Your task to perform on an android device: toggle javascript in the chrome app Image 0: 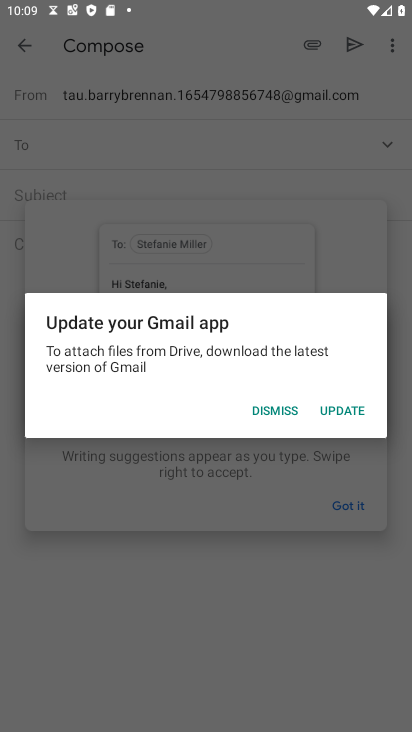
Step 0: press home button
Your task to perform on an android device: toggle javascript in the chrome app Image 1: 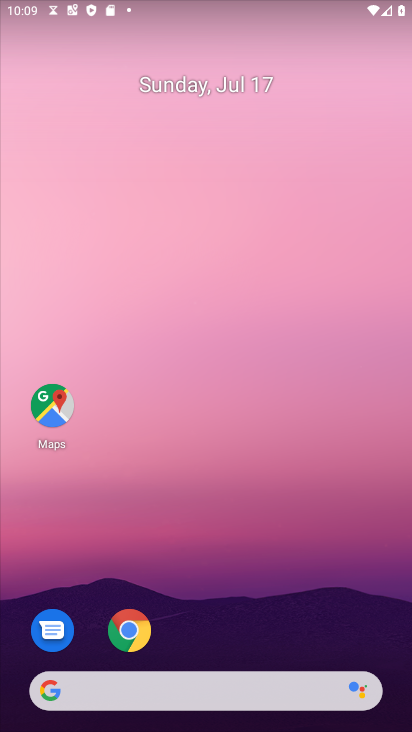
Step 1: drag from (253, 671) to (290, 19)
Your task to perform on an android device: toggle javascript in the chrome app Image 2: 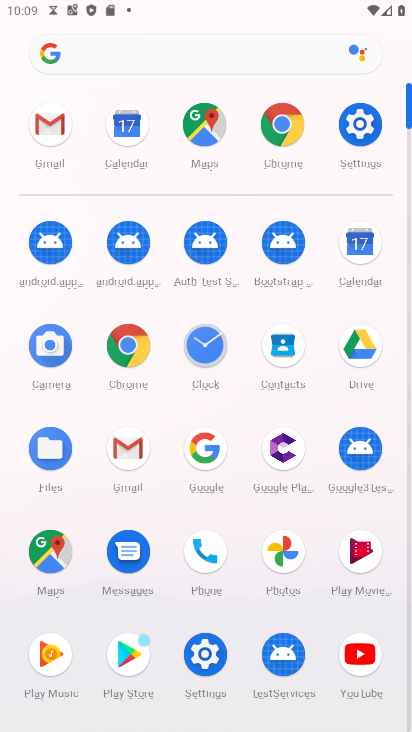
Step 2: click (123, 350)
Your task to perform on an android device: toggle javascript in the chrome app Image 3: 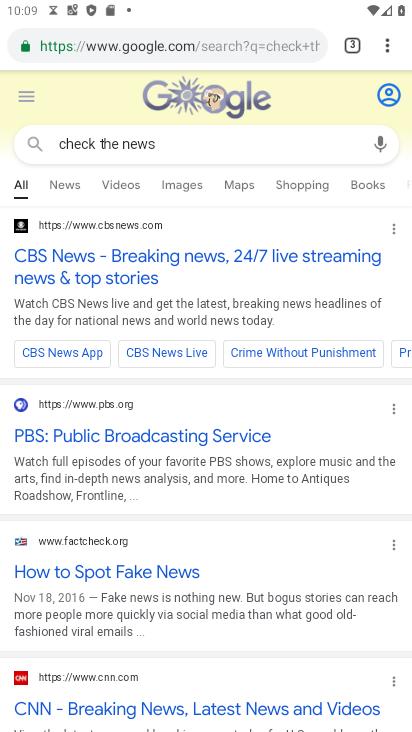
Step 3: drag from (385, 46) to (251, 505)
Your task to perform on an android device: toggle javascript in the chrome app Image 4: 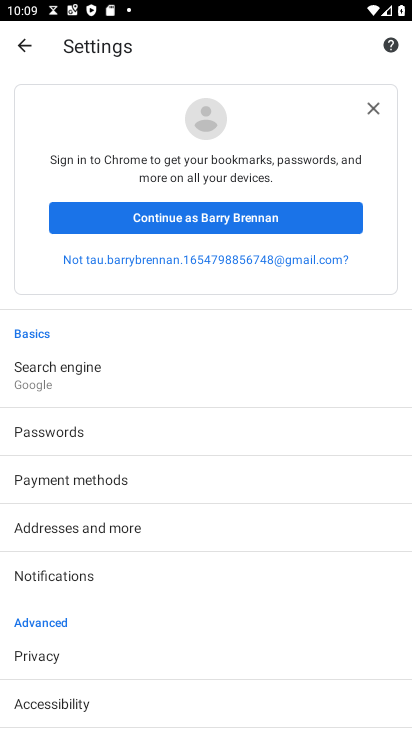
Step 4: drag from (114, 602) to (126, 135)
Your task to perform on an android device: toggle javascript in the chrome app Image 5: 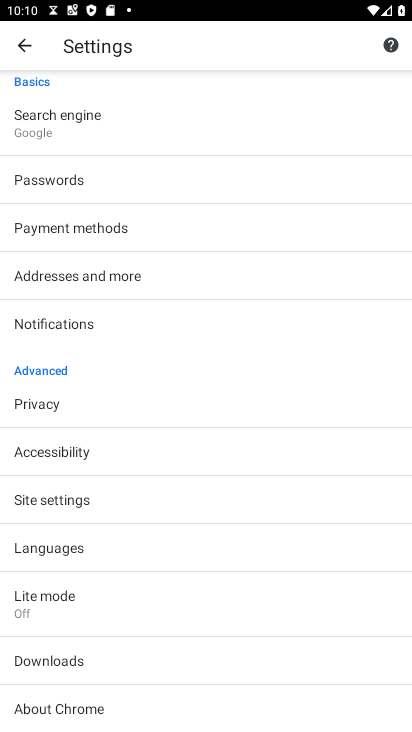
Step 5: click (68, 496)
Your task to perform on an android device: toggle javascript in the chrome app Image 6: 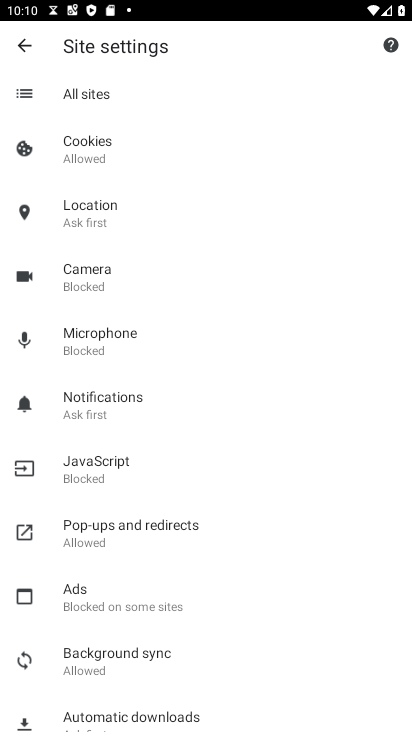
Step 6: click (123, 471)
Your task to perform on an android device: toggle javascript in the chrome app Image 7: 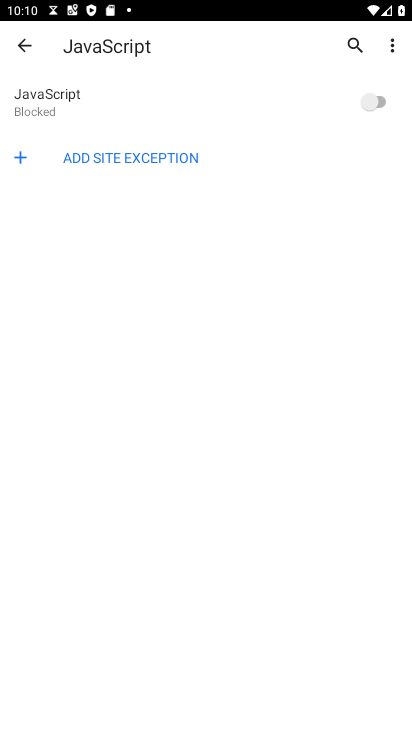
Step 7: click (362, 92)
Your task to perform on an android device: toggle javascript in the chrome app Image 8: 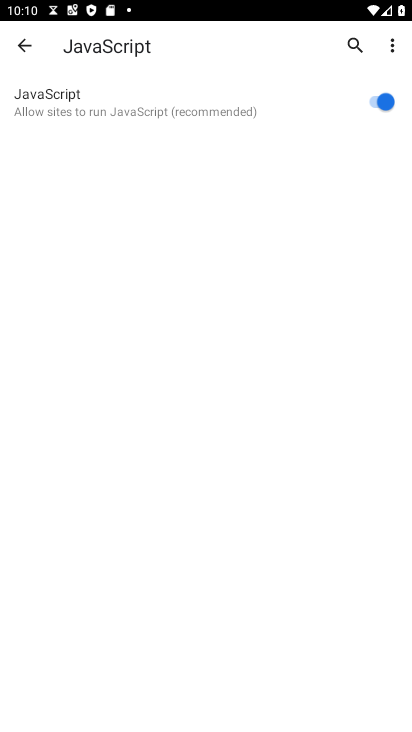
Step 8: task complete